Your task to perform on an android device: see creations saved in the google photos Image 0: 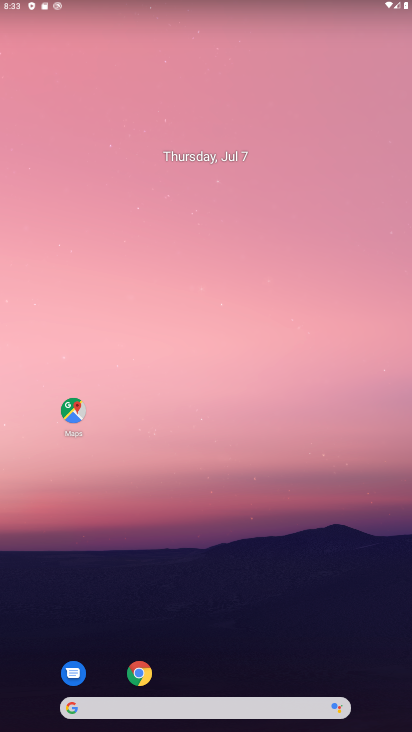
Step 0: drag from (278, 644) to (246, 213)
Your task to perform on an android device: see creations saved in the google photos Image 1: 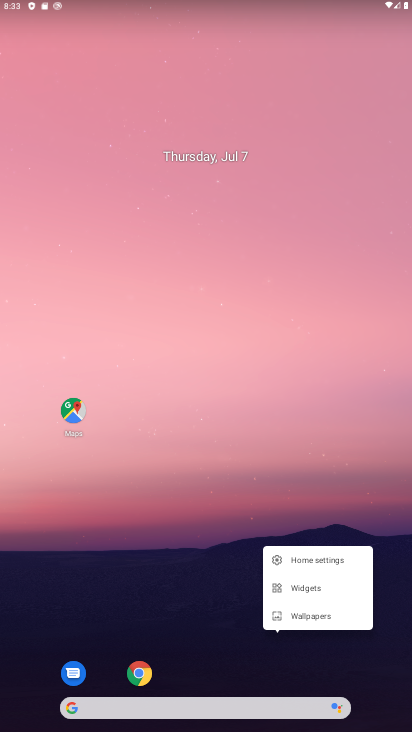
Step 1: click (232, 615)
Your task to perform on an android device: see creations saved in the google photos Image 2: 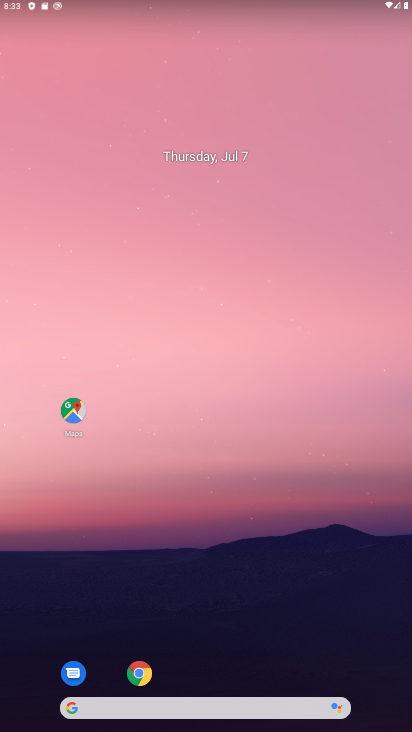
Step 2: drag from (232, 615) to (242, 238)
Your task to perform on an android device: see creations saved in the google photos Image 3: 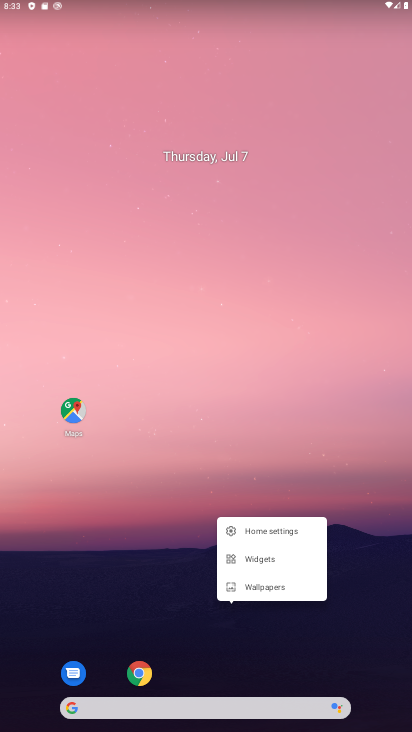
Step 3: drag from (222, 667) to (265, 25)
Your task to perform on an android device: see creations saved in the google photos Image 4: 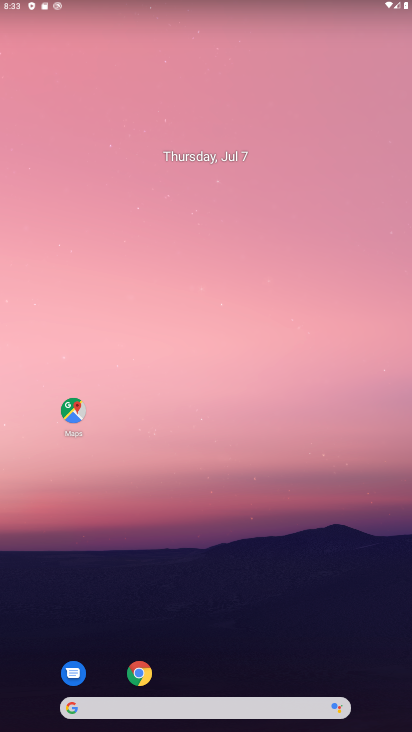
Step 4: drag from (365, 645) to (361, 111)
Your task to perform on an android device: see creations saved in the google photos Image 5: 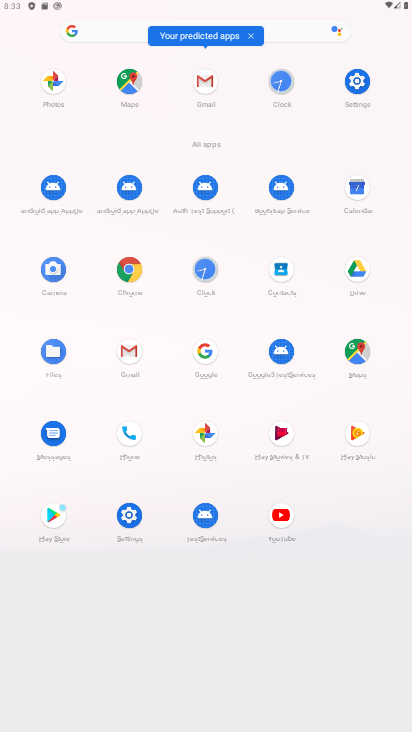
Step 5: click (206, 430)
Your task to perform on an android device: see creations saved in the google photos Image 6: 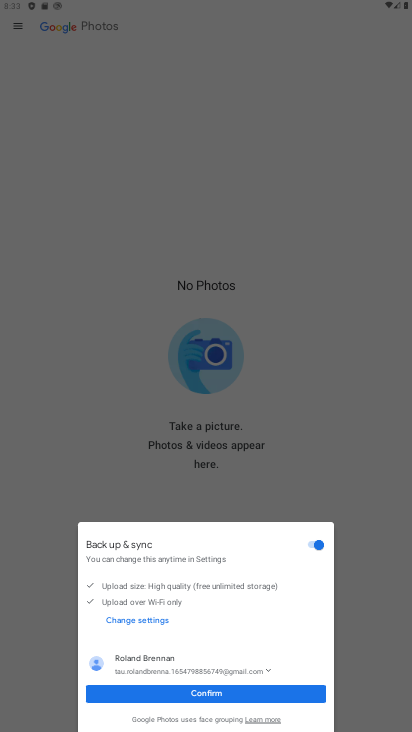
Step 6: click (235, 694)
Your task to perform on an android device: see creations saved in the google photos Image 7: 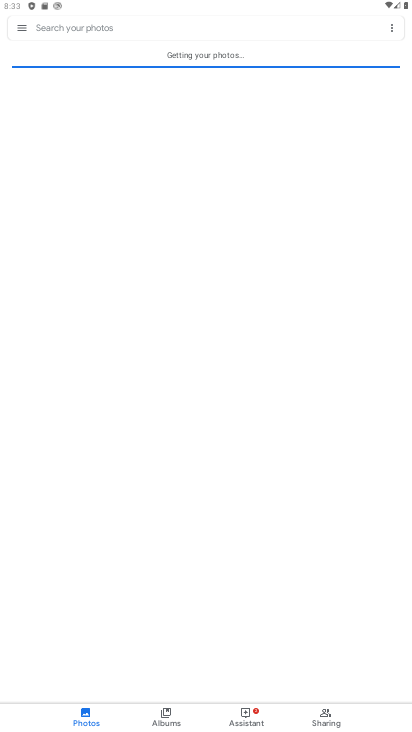
Step 7: click (144, 29)
Your task to perform on an android device: see creations saved in the google photos Image 8: 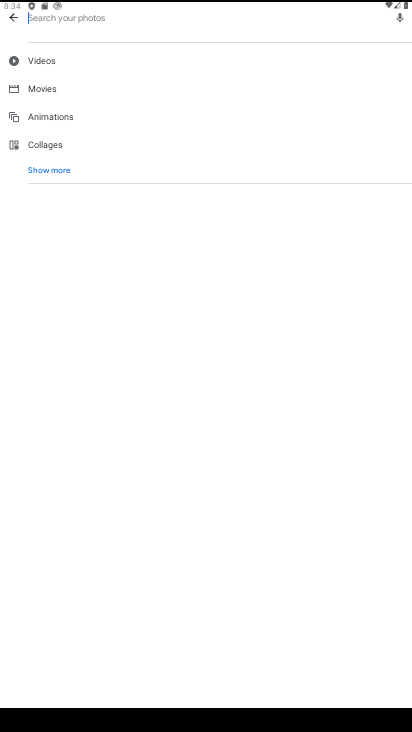
Step 8: click (51, 169)
Your task to perform on an android device: see creations saved in the google photos Image 9: 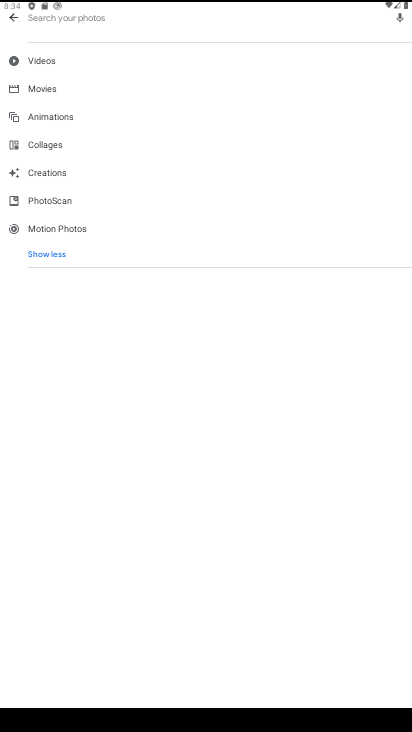
Step 9: click (68, 172)
Your task to perform on an android device: see creations saved in the google photos Image 10: 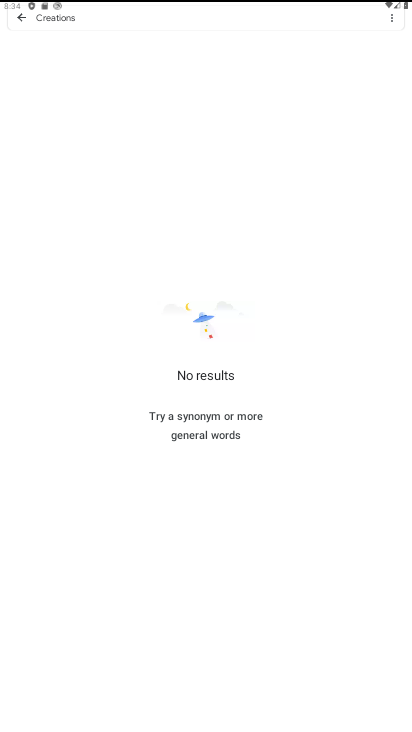
Step 10: task complete